Your task to perform on an android device: Open Google Maps and go to "Timeline" Image 0: 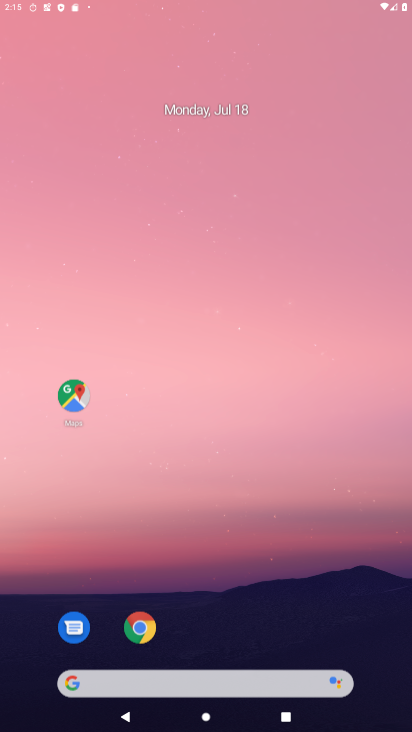
Step 0: press home button
Your task to perform on an android device: Open Google Maps and go to "Timeline" Image 1: 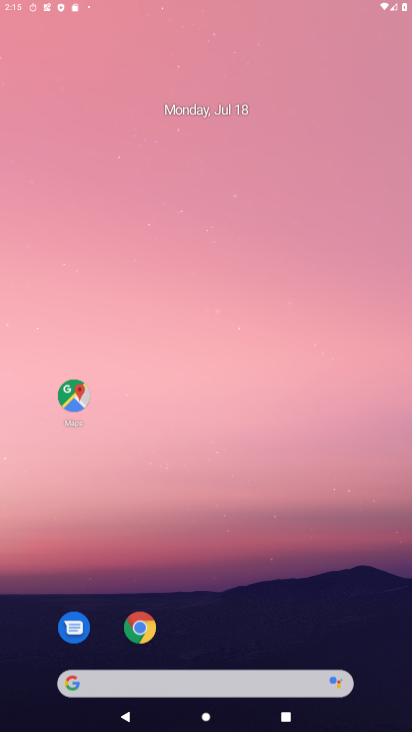
Step 1: click (216, 85)
Your task to perform on an android device: Open Google Maps and go to "Timeline" Image 2: 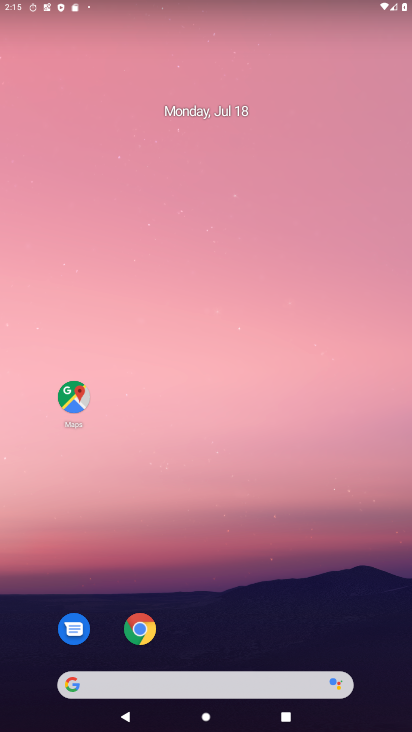
Step 2: click (68, 394)
Your task to perform on an android device: Open Google Maps and go to "Timeline" Image 3: 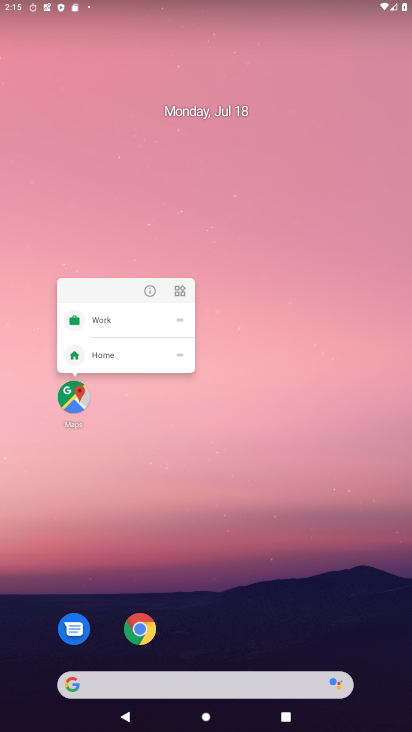
Step 3: click (68, 389)
Your task to perform on an android device: Open Google Maps and go to "Timeline" Image 4: 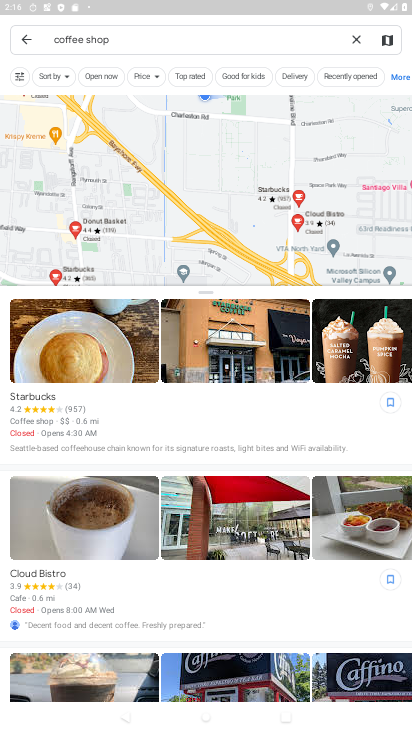
Step 4: click (24, 33)
Your task to perform on an android device: Open Google Maps and go to "Timeline" Image 5: 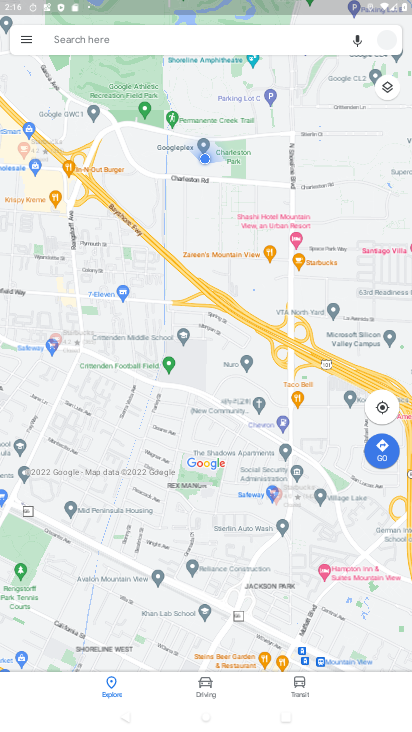
Step 5: click (24, 38)
Your task to perform on an android device: Open Google Maps and go to "Timeline" Image 6: 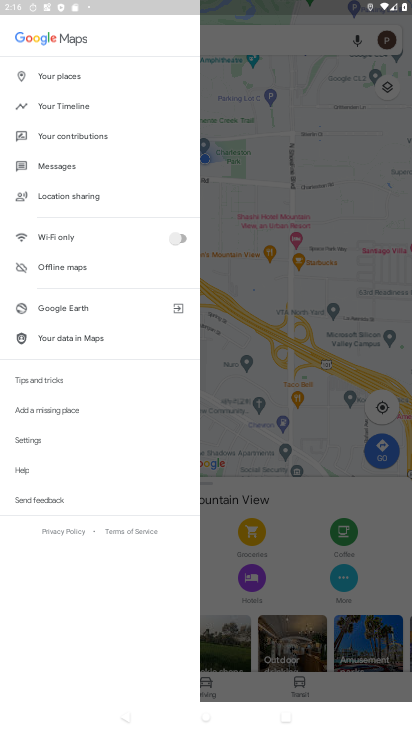
Step 6: click (87, 104)
Your task to perform on an android device: Open Google Maps and go to "Timeline" Image 7: 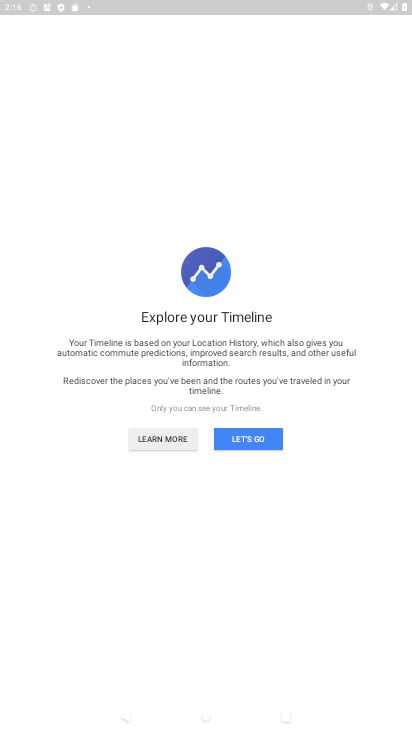
Step 7: click (245, 440)
Your task to perform on an android device: Open Google Maps and go to "Timeline" Image 8: 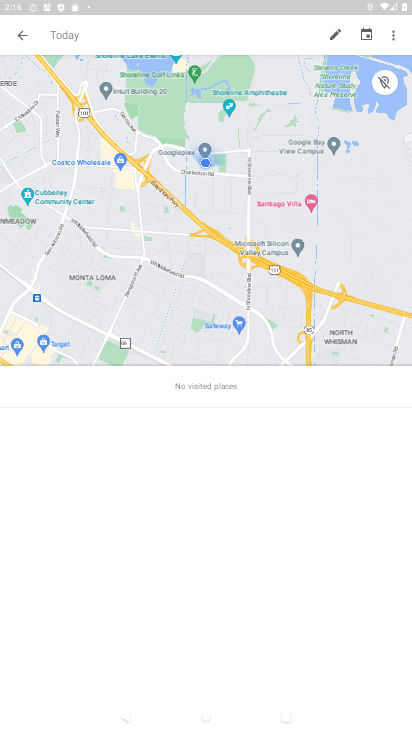
Step 8: task complete